Your task to perform on an android device: Search for razer nari on target, select the first entry, add it to the cart, then select checkout. Image 0: 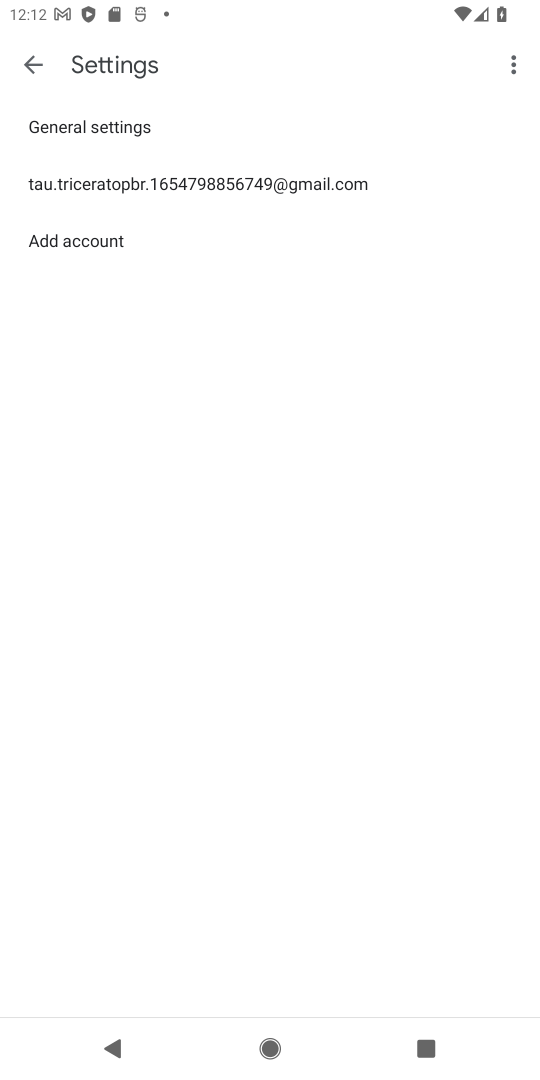
Step 0: press home button
Your task to perform on an android device: Search for razer nari on target, select the first entry, add it to the cart, then select checkout. Image 1: 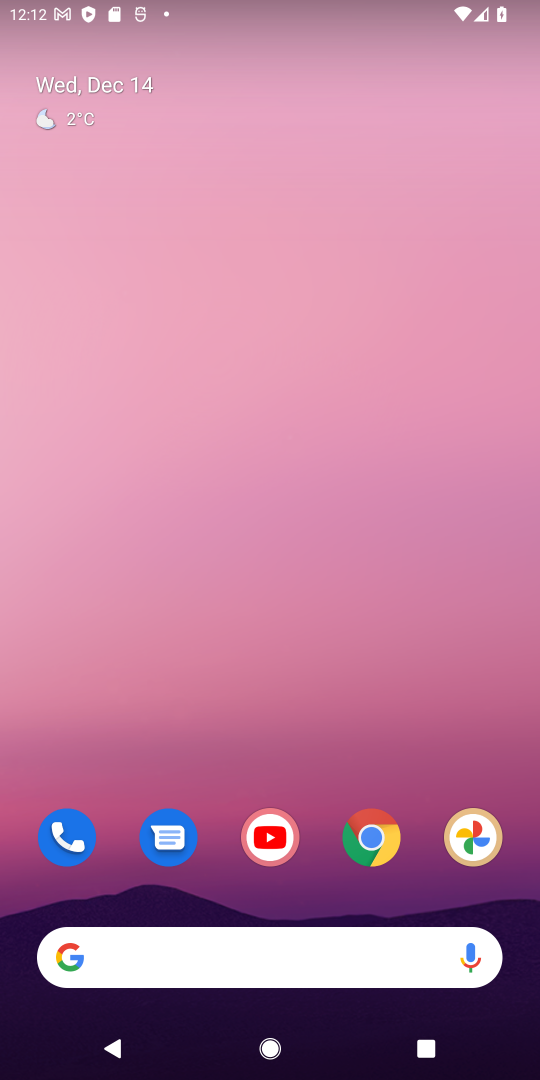
Step 1: click (362, 850)
Your task to perform on an android device: Search for razer nari on target, select the first entry, add it to the cart, then select checkout. Image 2: 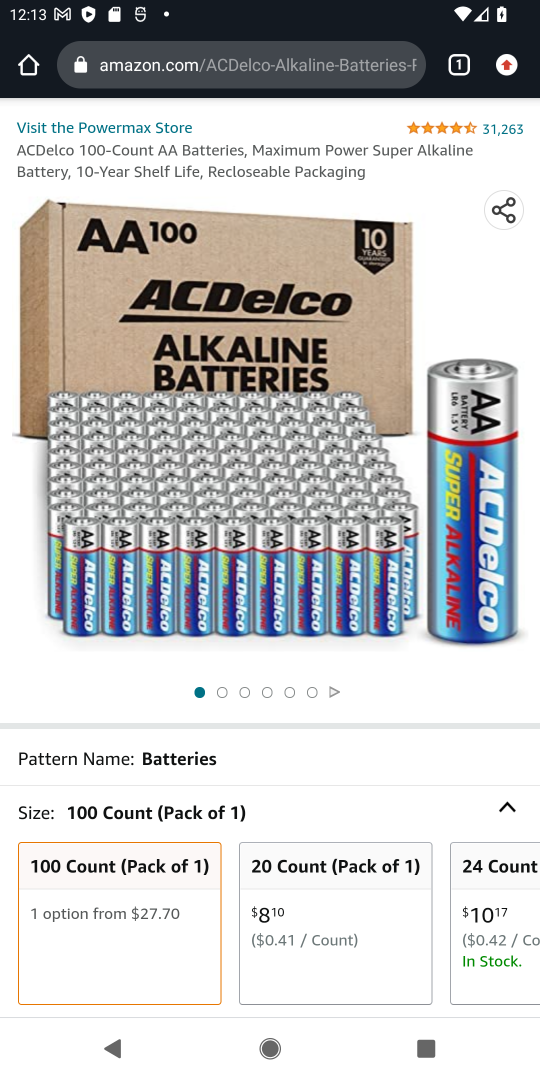
Step 2: click (138, 53)
Your task to perform on an android device: Search for razer nari on target, select the first entry, add it to the cart, then select checkout. Image 3: 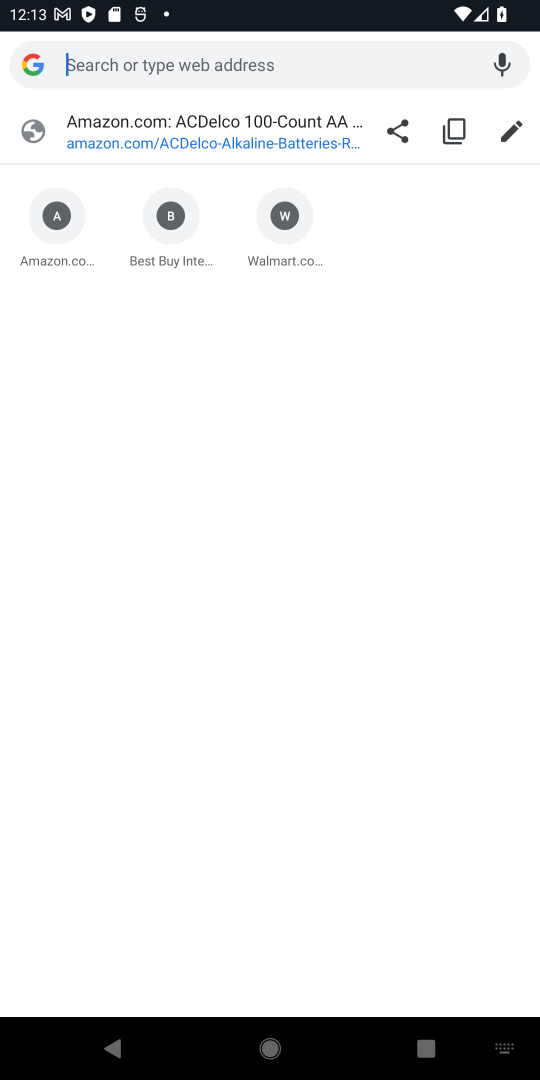
Step 3: type "target"
Your task to perform on an android device: Search for razer nari on target, select the first entry, add it to the cart, then select checkout. Image 4: 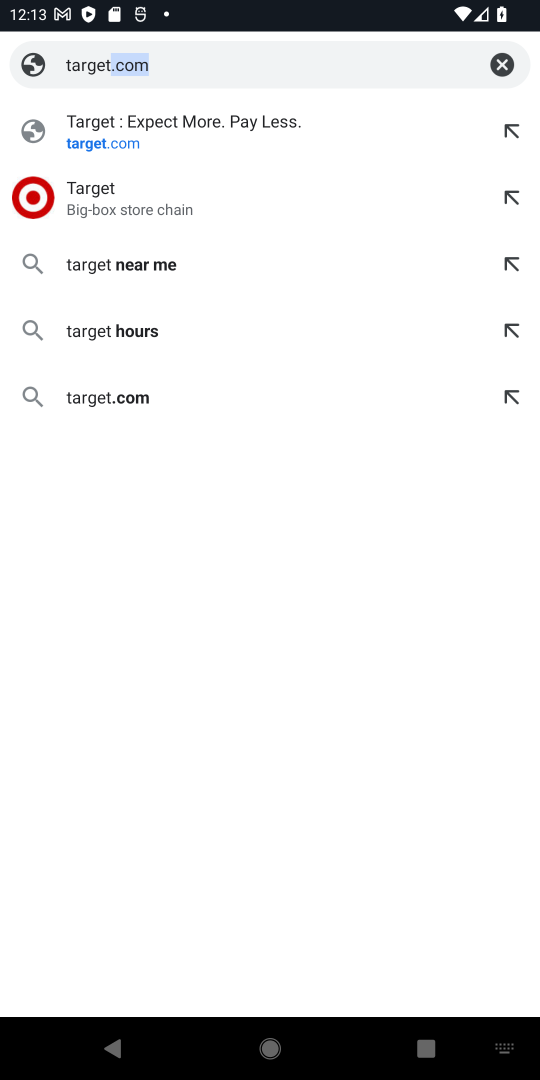
Step 4: click (197, 185)
Your task to perform on an android device: Search for razer nari on target, select the first entry, add it to the cart, then select checkout. Image 5: 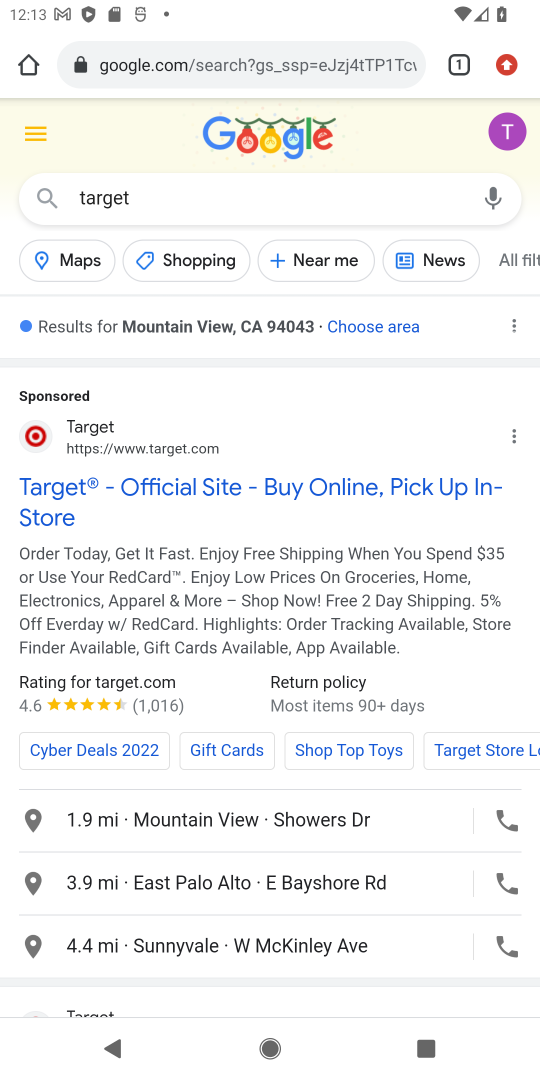
Step 5: click (181, 522)
Your task to perform on an android device: Search for razer nari on target, select the first entry, add it to the cart, then select checkout. Image 6: 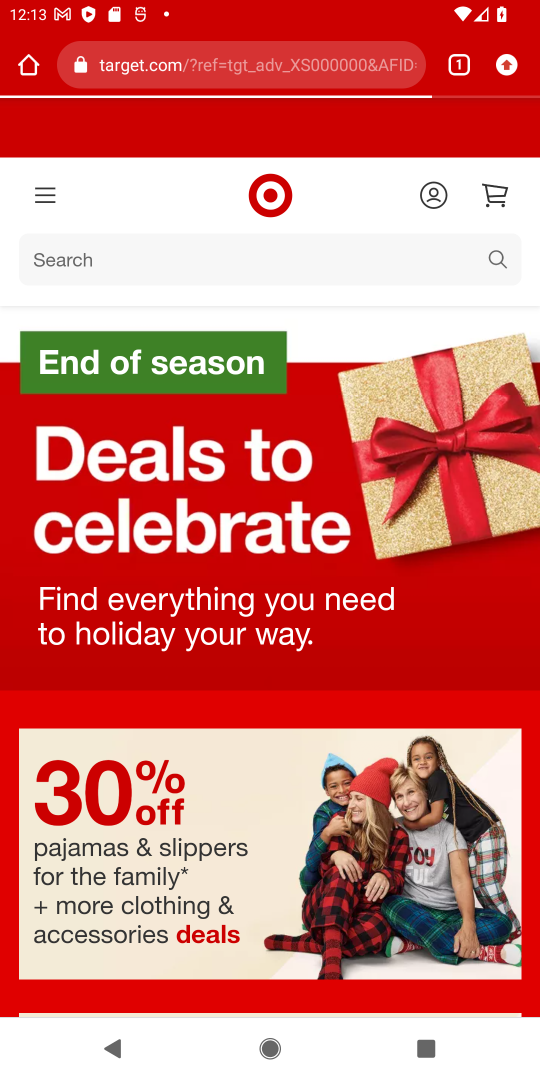
Step 6: click (228, 279)
Your task to perform on an android device: Search for razer nari on target, select the first entry, add it to the cart, then select checkout. Image 7: 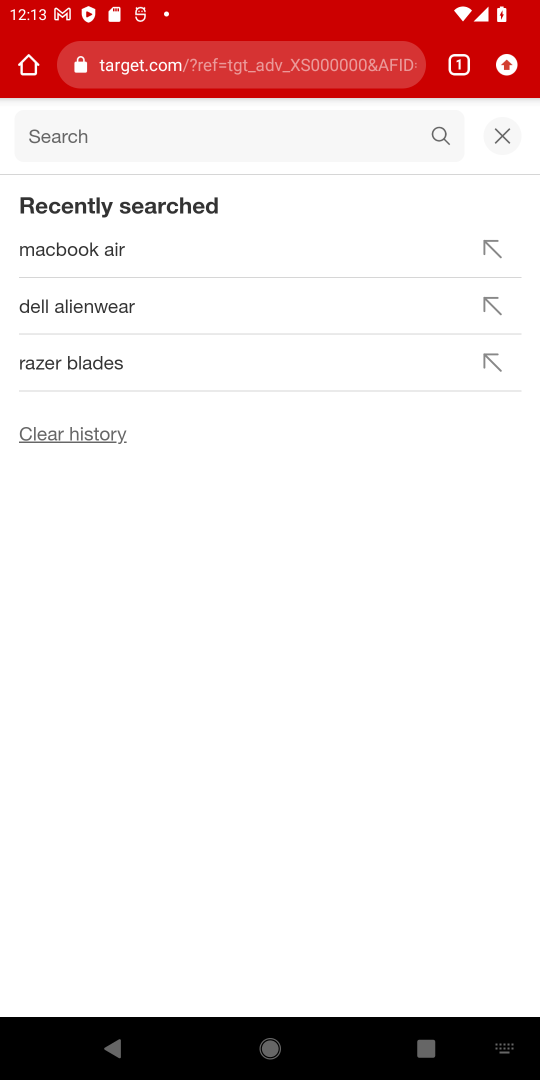
Step 7: type "razer nari"
Your task to perform on an android device: Search for razer nari on target, select the first entry, add it to the cart, then select checkout. Image 8: 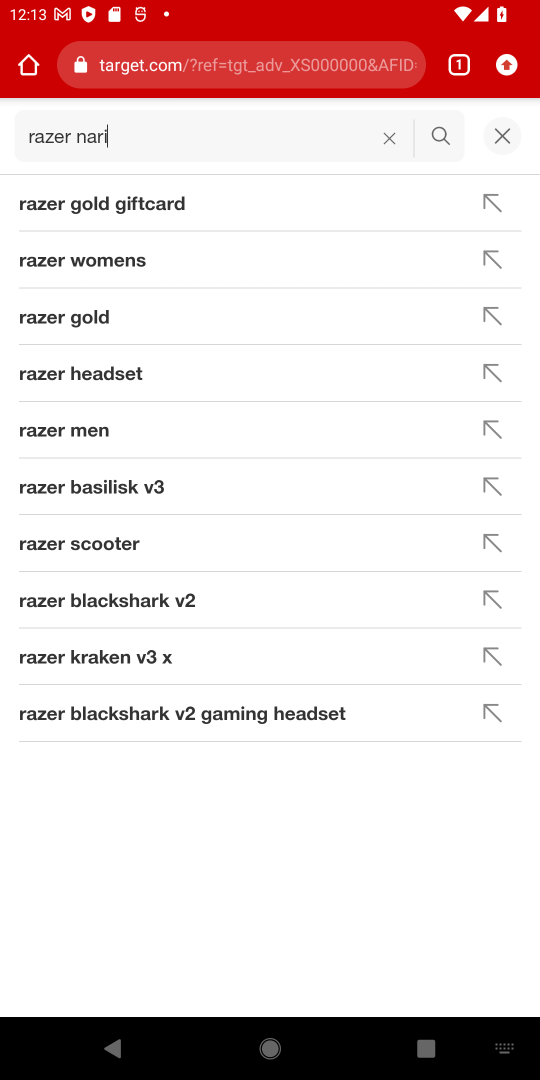
Step 8: click (436, 144)
Your task to perform on an android device: Search for razer nari on target, select the first entry, add it to the cart, then select checkout. Image 9: 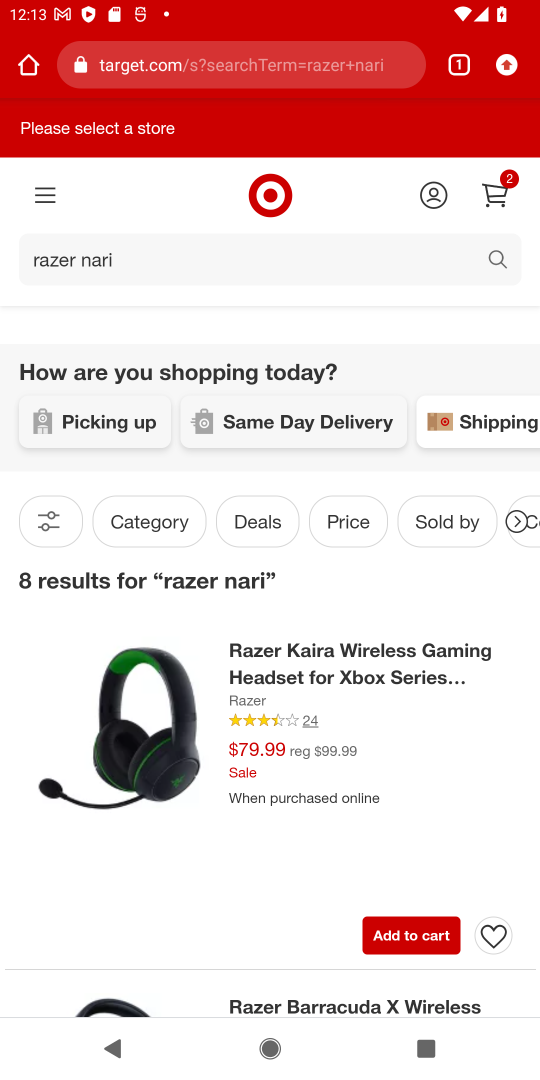
Step 9: click (389, 951)
Your task to perform on an android device: Search for razer nari on target, select the first entry, add it to the cart, then select checkout. Image 10: 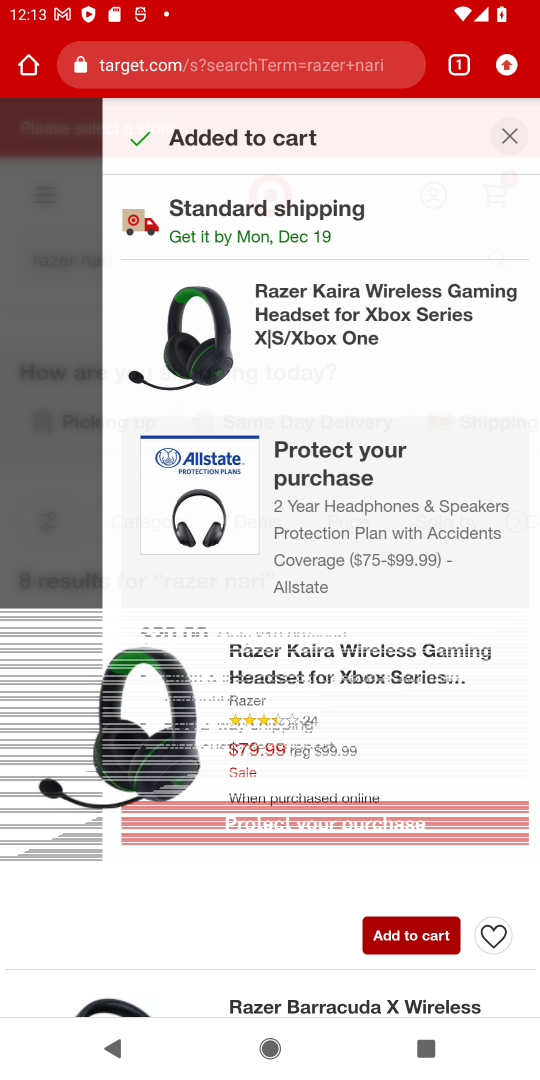
Step 10: task complete